Your task to perform on an android device: Open the phone app and click the voicemail tab. Image 0: 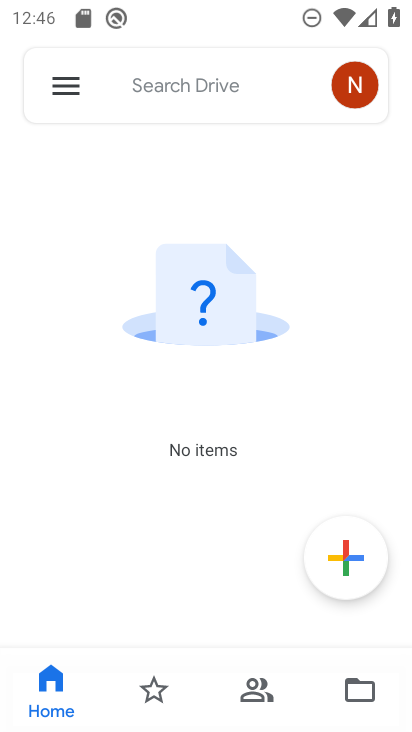
Step 0: press home button
Your task to perform on an android device: Open the phone app and click the voicemail tab. Image 1: 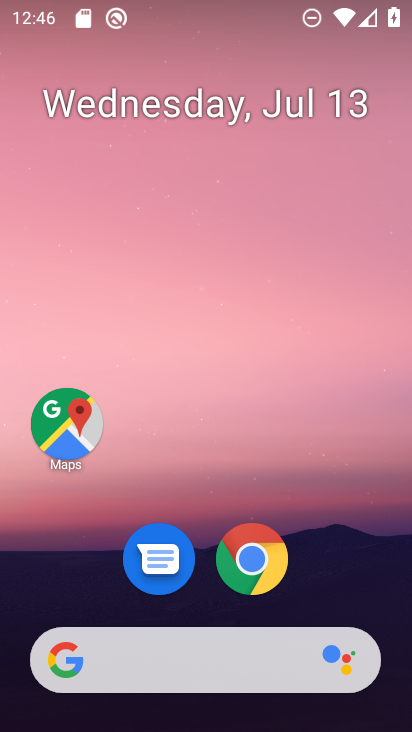
Step 1: drag from (200, 616) to (315, 109)
Your task to perform on an android device: Open the phone app and click the voicemail tab. Image 2: 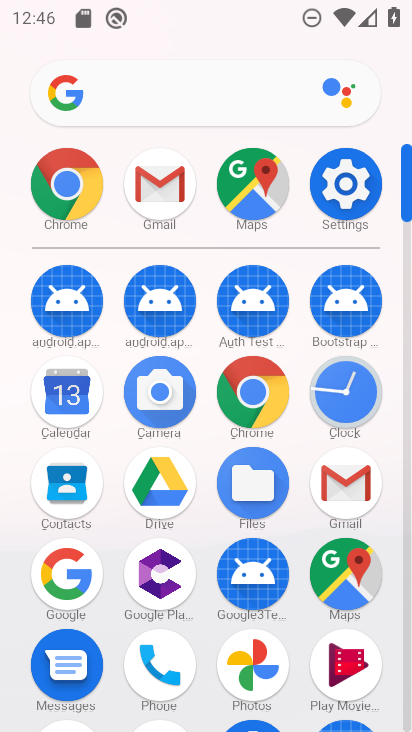
Step 2: click (151, 680)
Your task to perform on an android device: Open the phone app and click the voicemail tab. Image 3: 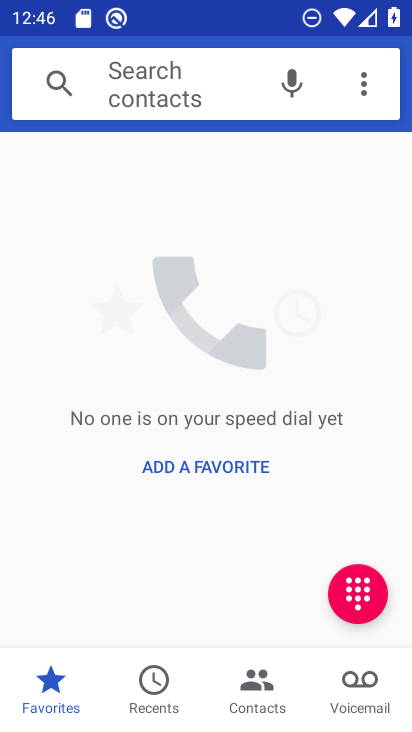
Step 3: click (356, 683)
Your task to perform on an android device: Open the phone app and click the voicemail tab. Image 4: 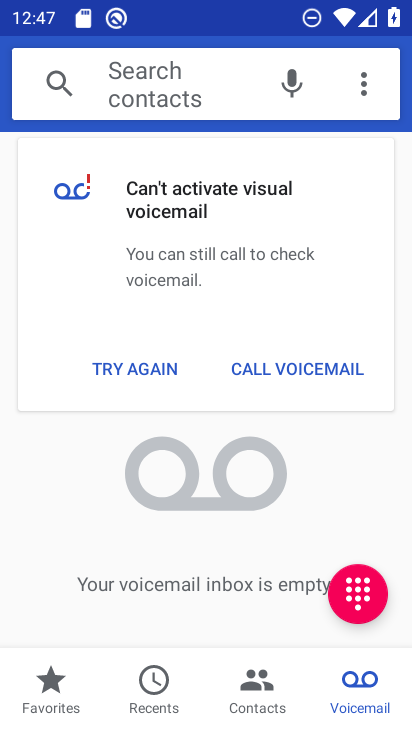
Step 4: task complete